Your task to perform on an android device: toggle translation in the chrome app Image 0: 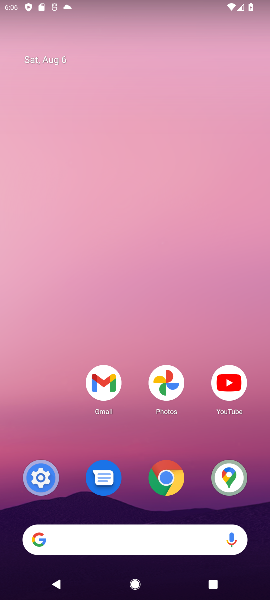
Step 0: press home button
Your task to perform on an android device: toggle translation in the chrome app Image 1: 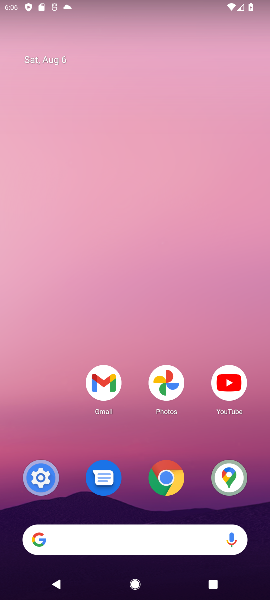
Step 1: click (171, 469)
Your task to perform on an android device: toggle translation in the chrome app Image 2: 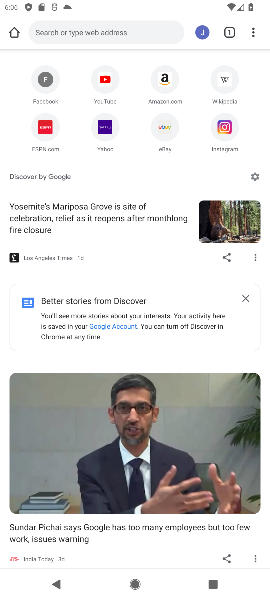
Step 2: drag from (255, 28) to (159, 315)
Your task to perform on an android device: toggle translation in the chrome app Image 3: 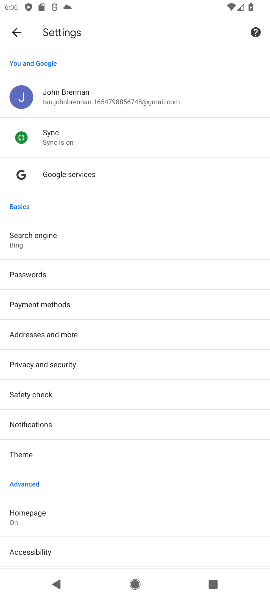
Step 3: drag from (132, 481) to (103, 235)
Your task to perform on an android device: toggle translation in the chrome app Image 4: 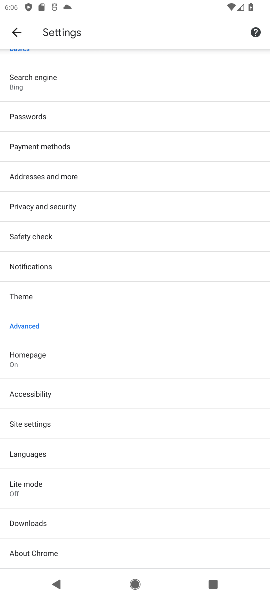
Step 4: click (22, 454)
Your task to perform on an android device: toggle translation in the chrome app Image 5: 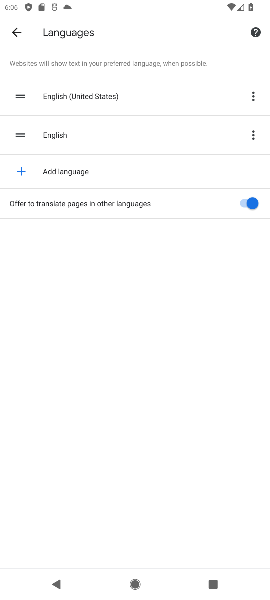
Step 5: click (254, 200)
Your task to perform on an android device: toggle translation in the chrome app Image 6: 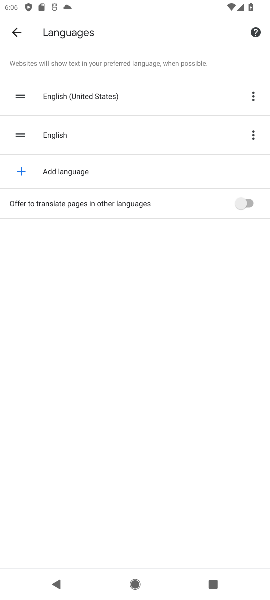
Step 6: click (247, 207)
Your task to perform on an android device: toggle translation in the chrome app Image 7: 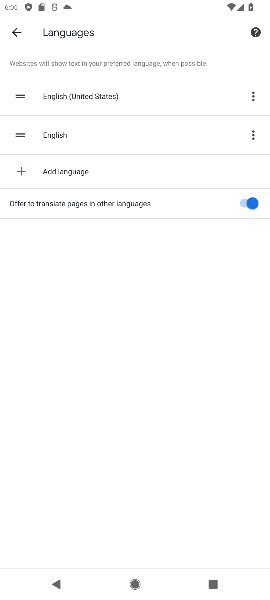
Step 7: task complete